Your task to perform on an android device: Open the map Image 0: 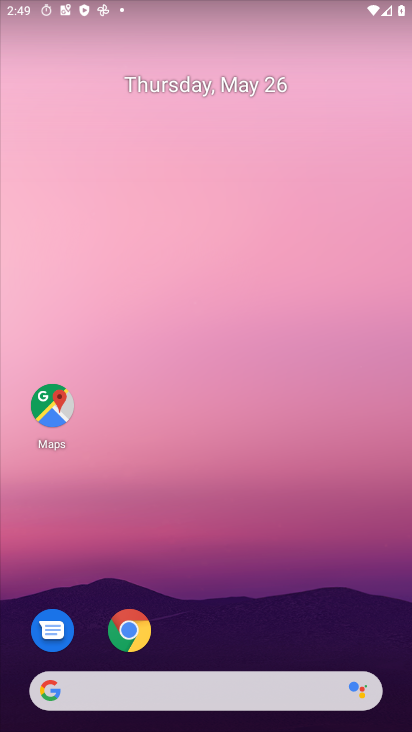
Step 0: click (35, 403)
Your task to perform on an android device: Open the map Image 1: 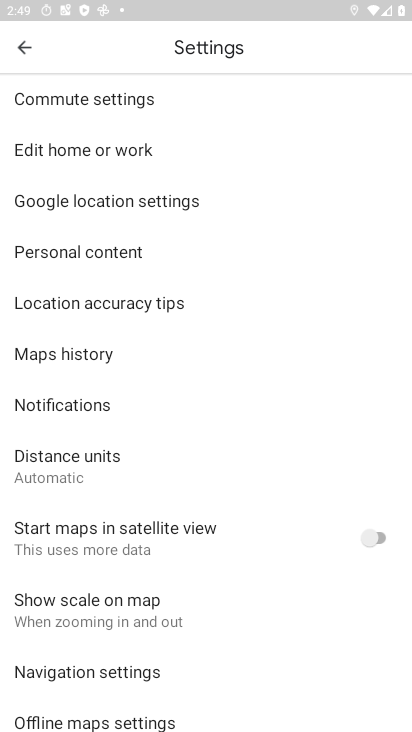
Step 1: task complete